Your task to perform on an android device: Search for custom t-shirts on Etsy. Image 0: 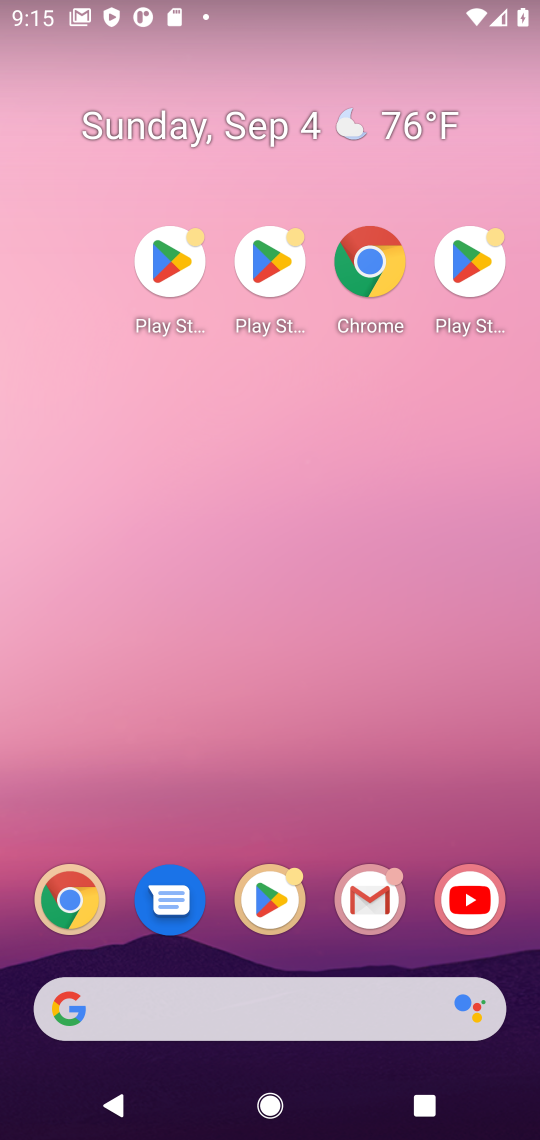
Step 0: drag from (313, 973) to (329, 139)
Your task to perform on an android device: Search for custom t-shirts on Etsy. Image 1: 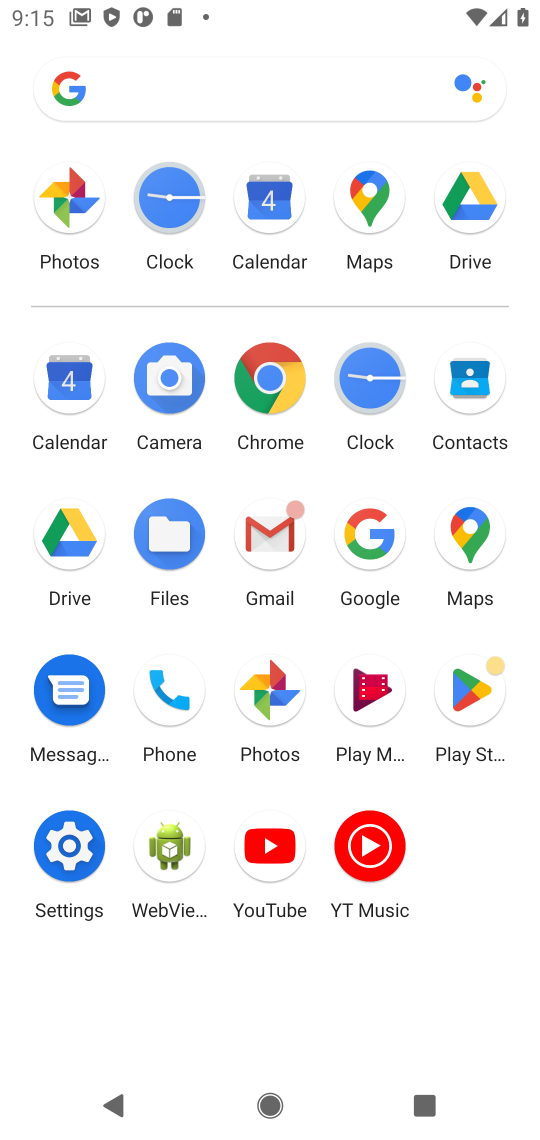
Step 1: click (285, 396)
Your task to perform on an android device: Search for custom t-shirts on Etsy. Image 2: 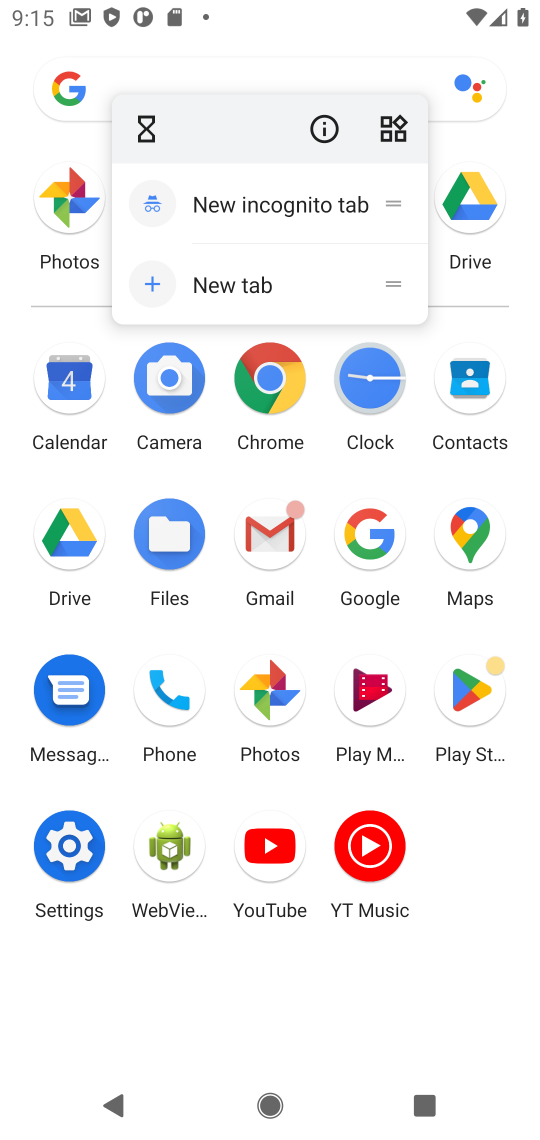
Step 2: click (210, 379)
Your task to perform on an android device: Search for custom t-shirts on Etsy. Image 3: 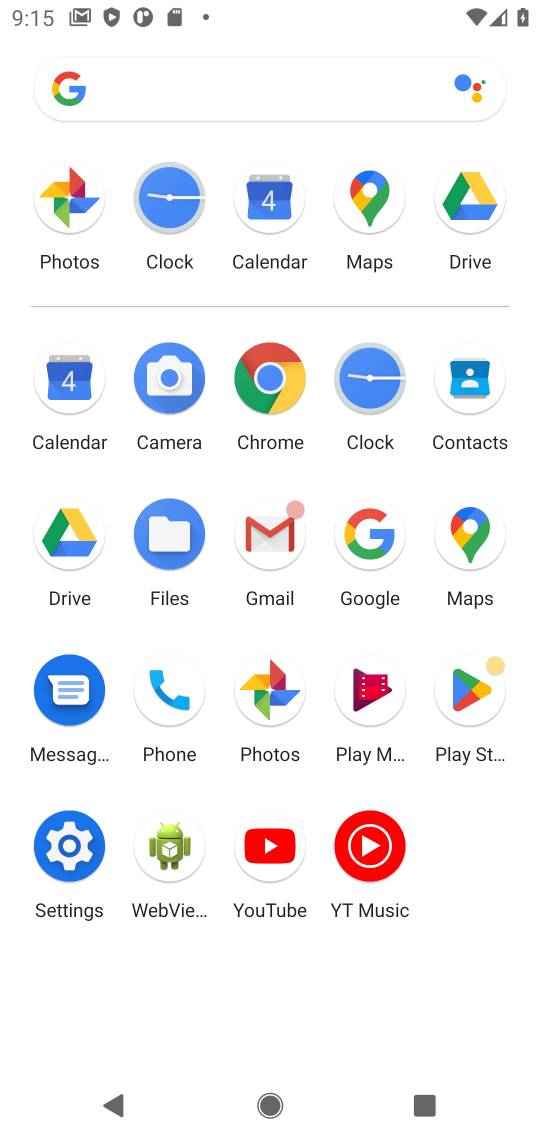
Step 3: click (264, 377)
Your task to perform on an android device: Search for custom t-shirts on Etsy. Image 4: 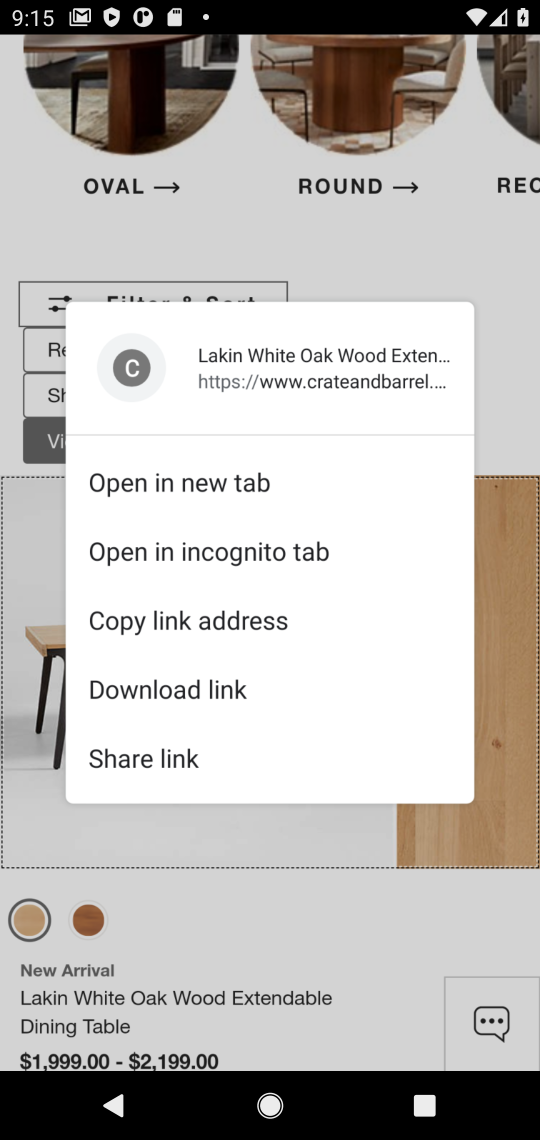
Step 4: click (326, 194)
Your task to perform on an android device: Search for custom t-shirts on Etsy. Image 5: 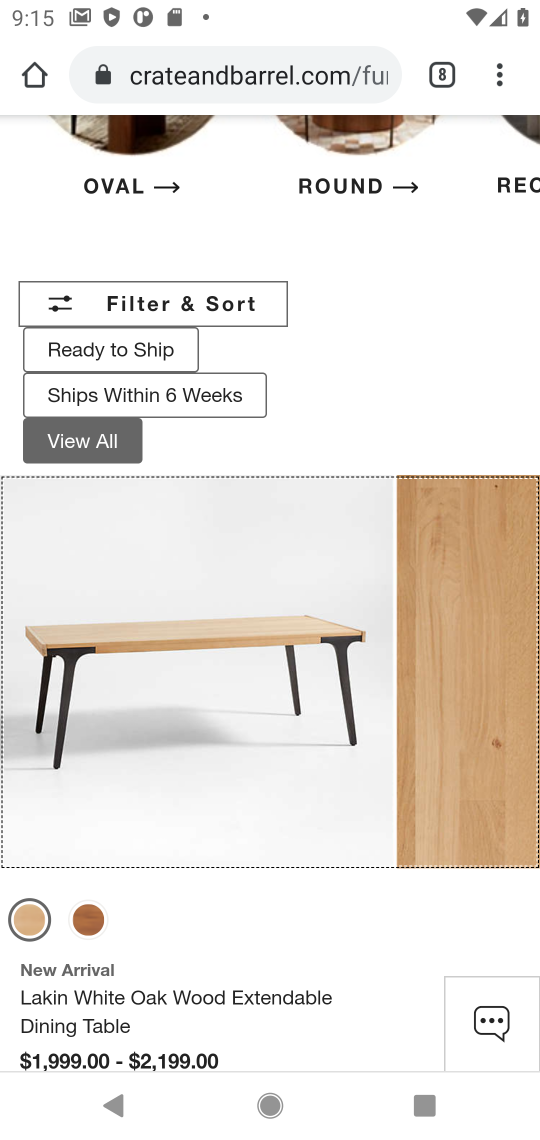
Step 5: click (293, 85)
Your task to perform on an android device: Search for custom t-shirts on Etsy. Image 6: 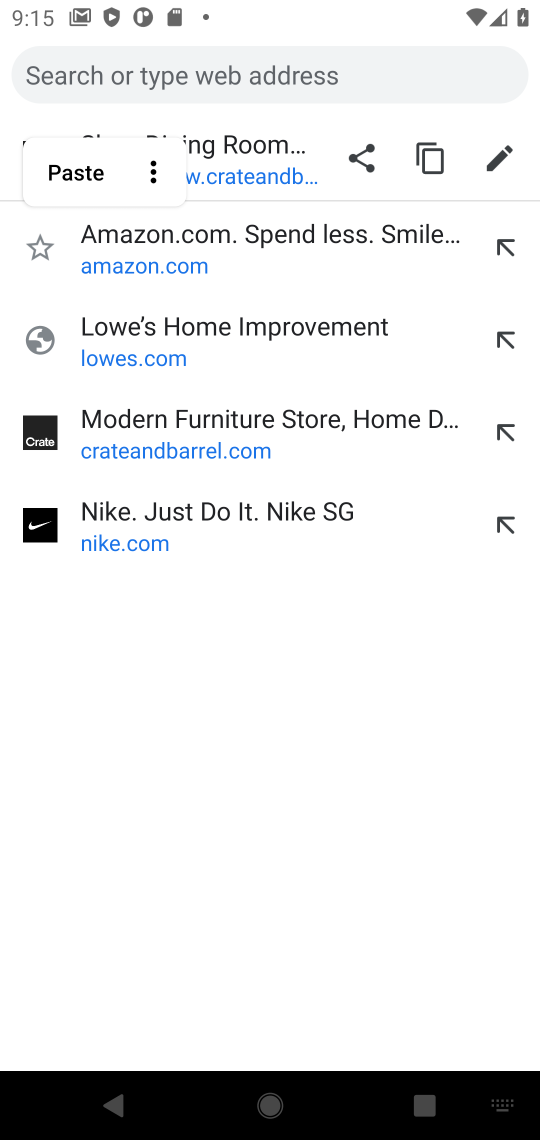
Step 6: type "Etsy"
Your task to perform on an android device: Search for custom t-shirts on Etsy. Image 7: 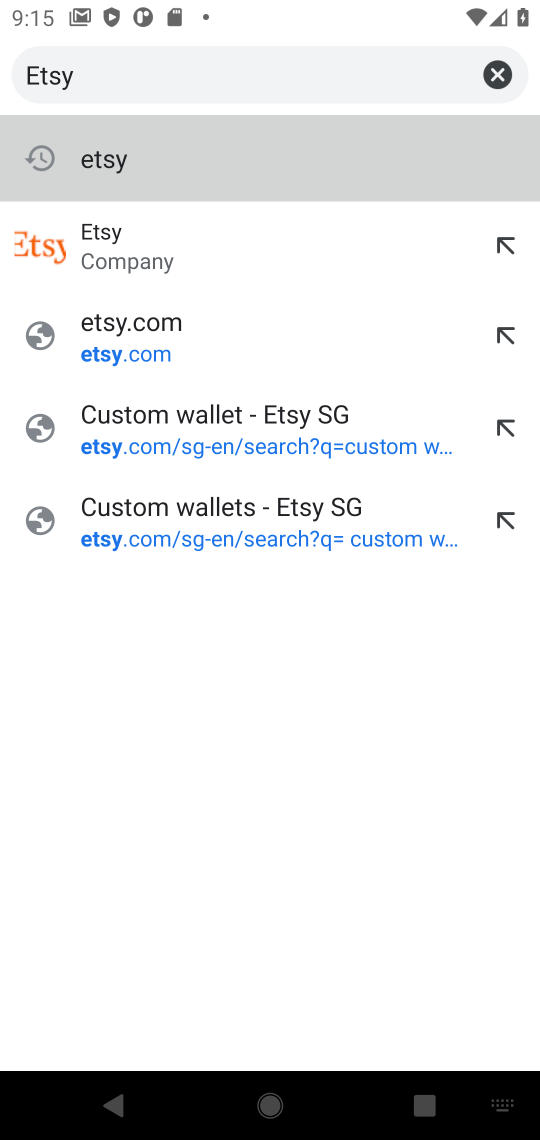
Step 7: type ""
Your task to perform on an android device: Search for custom t-shirts on Etsy. Image 8: 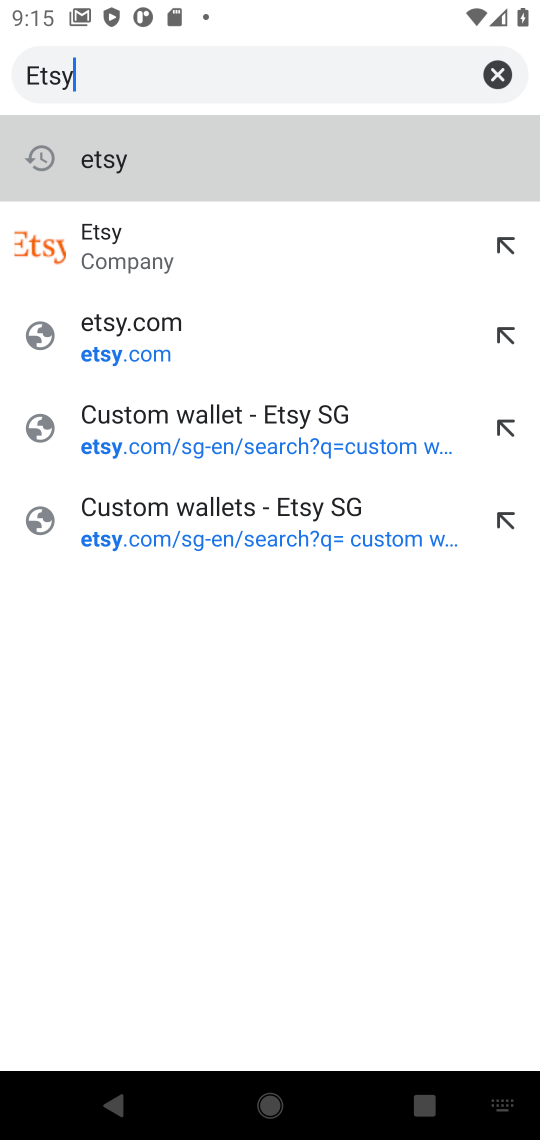
Step 8: click (140, 158)
Your task to perform on an android device: Search for custom t-shirts on Etsy. Image 9: 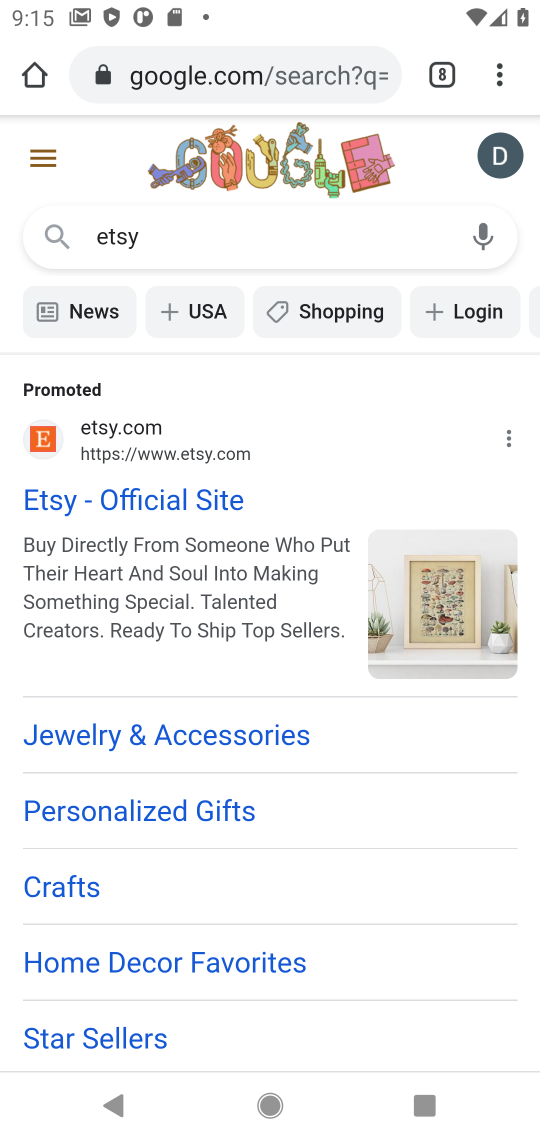
Step 9: click (154, 497)
Your task to perform on an android device: Search for custom t-shirts on Etsy. Image 10: 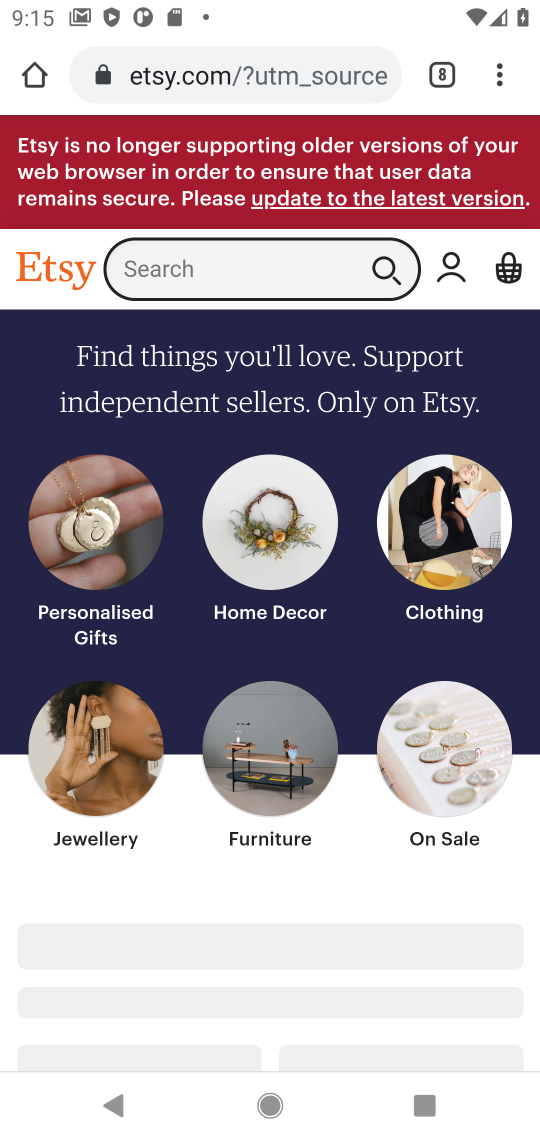
Step 10: click (151, 277)
Your task to perform on an android device: Search for custom t-shirts on Etsy. Image 11: 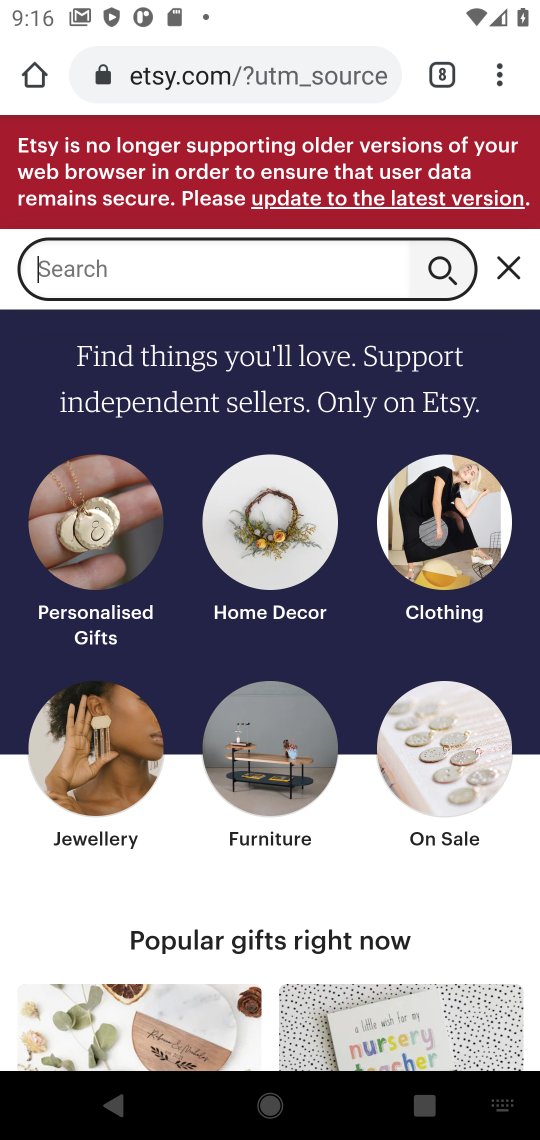
Step 11: type "custom t-shirts"
Your task to perform on an android device: Search for custom t-shirts on Etsy. Image 12: 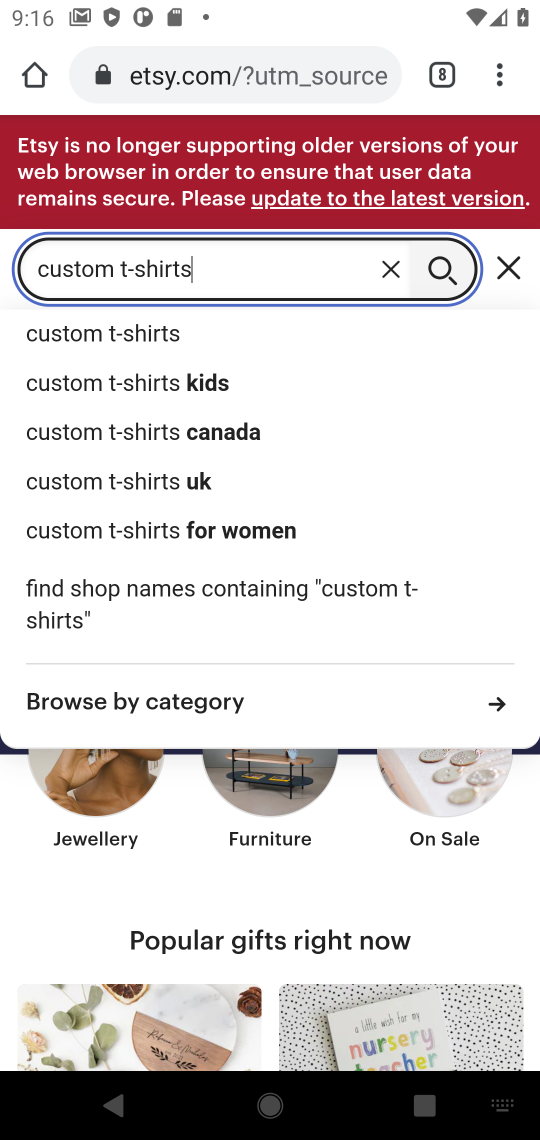
Step 12: click (141, 331)
Your task to perform on an android device: Search for custom t-shirts on Etsy. Image 13: 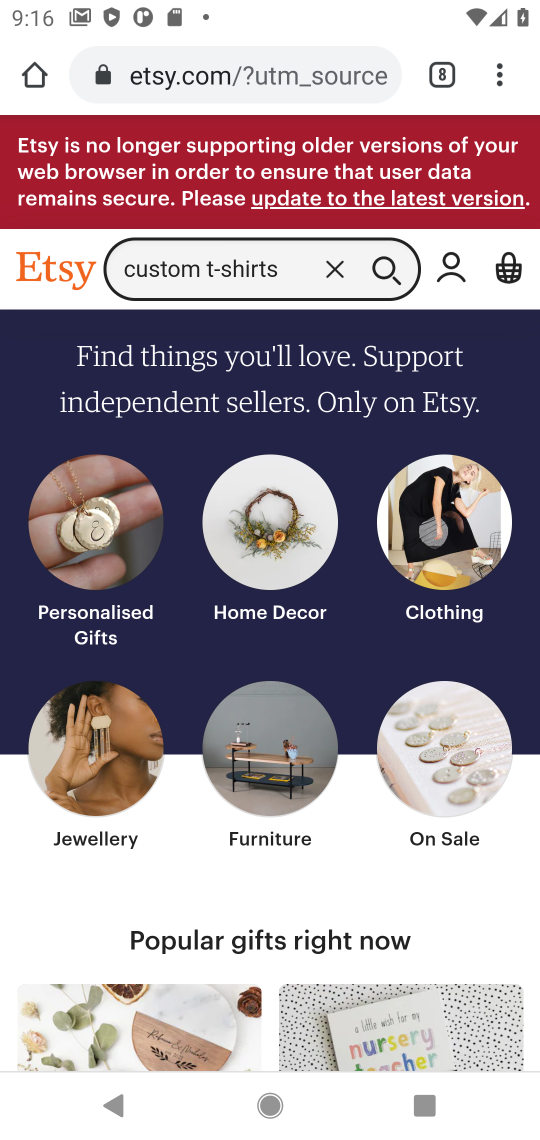
Step 13: click (379, 272)
Your task to perform on an android device: Search for custom t-shirts on Etsy. Image 14: 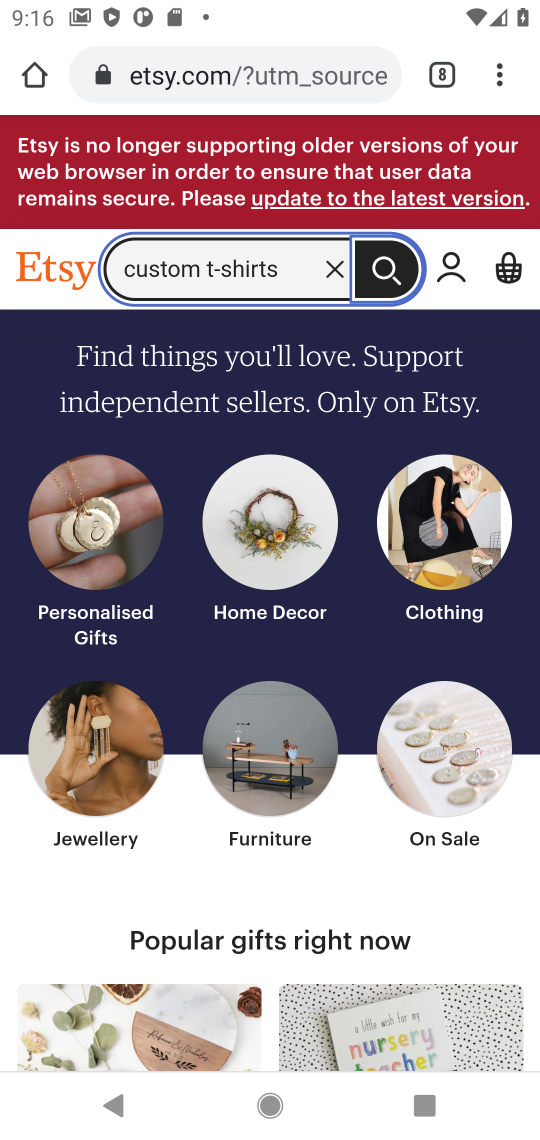
Step 14: click (385, 264)
Your task to perform on an android device: Search for custom t-shirts on Etsy. Image 15: 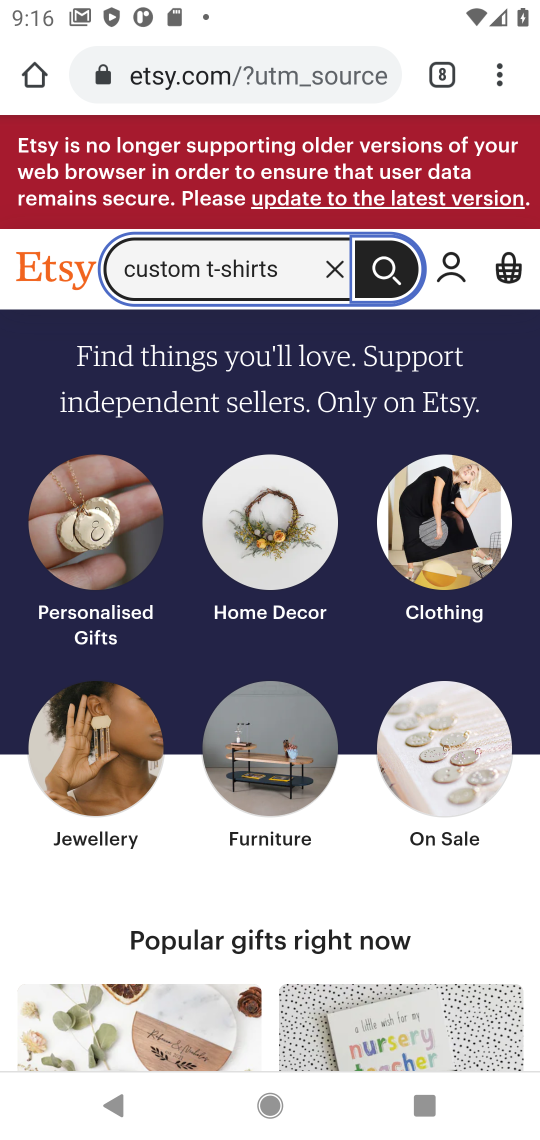
Step 15: click (385, 264)
Your task to perform on an android device: Search for custom t-shirts on Etsy. Image 16: 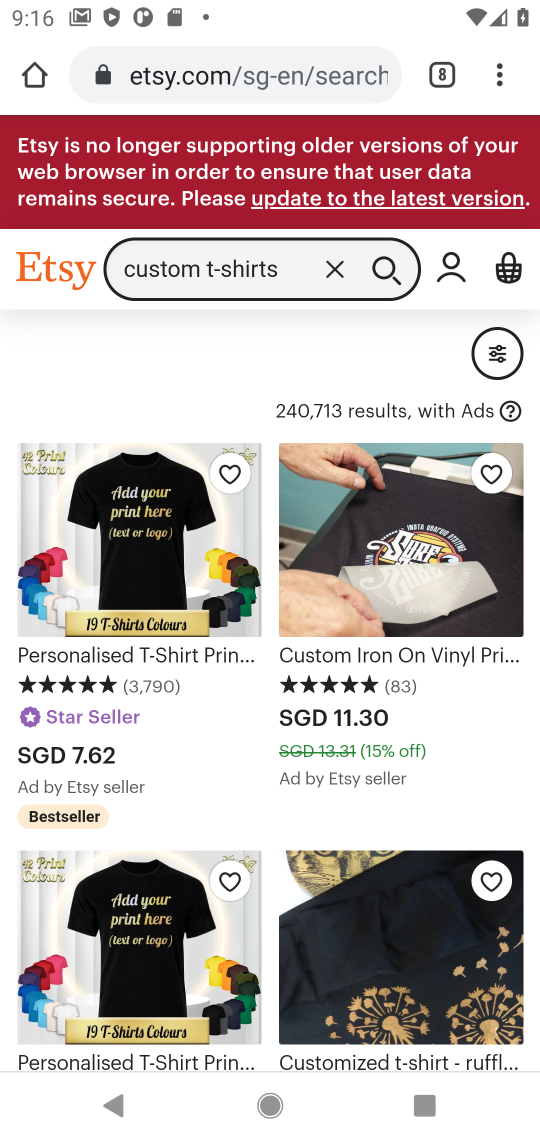
Step 16: drag from (375, 836) to (335, 405)
Your task to perform on an android device: Search for custom t-shirts on Etsy. Image 17: 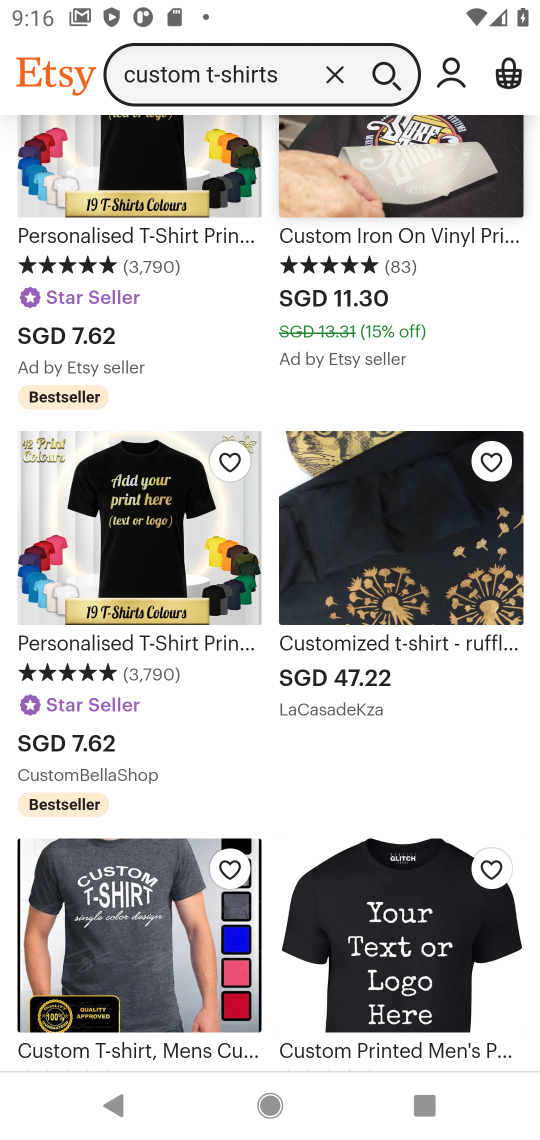
Step 17: drag from (305, 871) to (291, 437)
Your task to perform on an android device: Search for custom t-shirts on Etsy. Image 18: 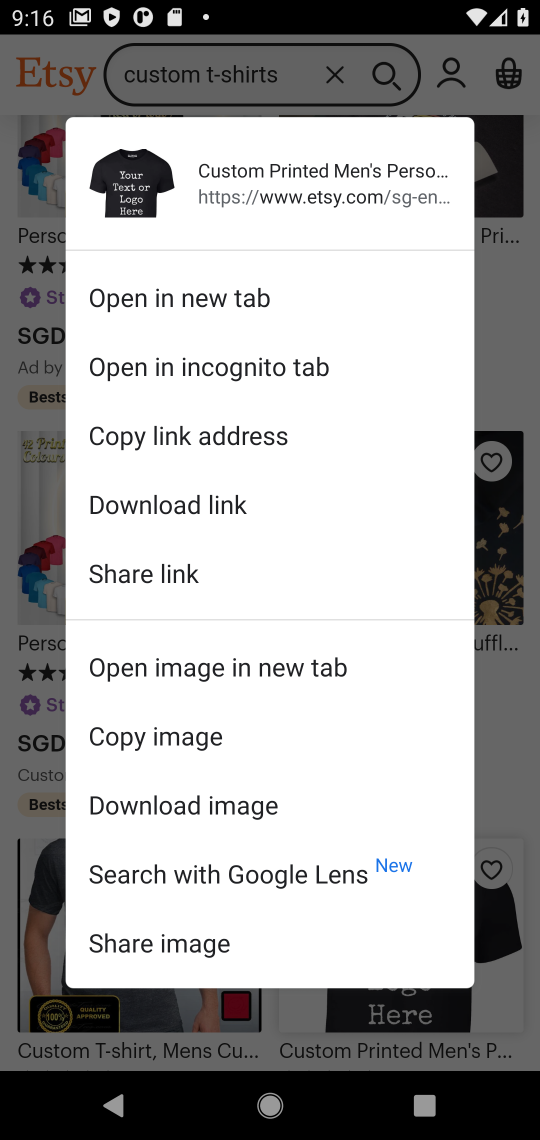
Step 18: click (496, 662)
Your task to perform on an android device: Search for custom t-shirts on Etsy. Image 19: 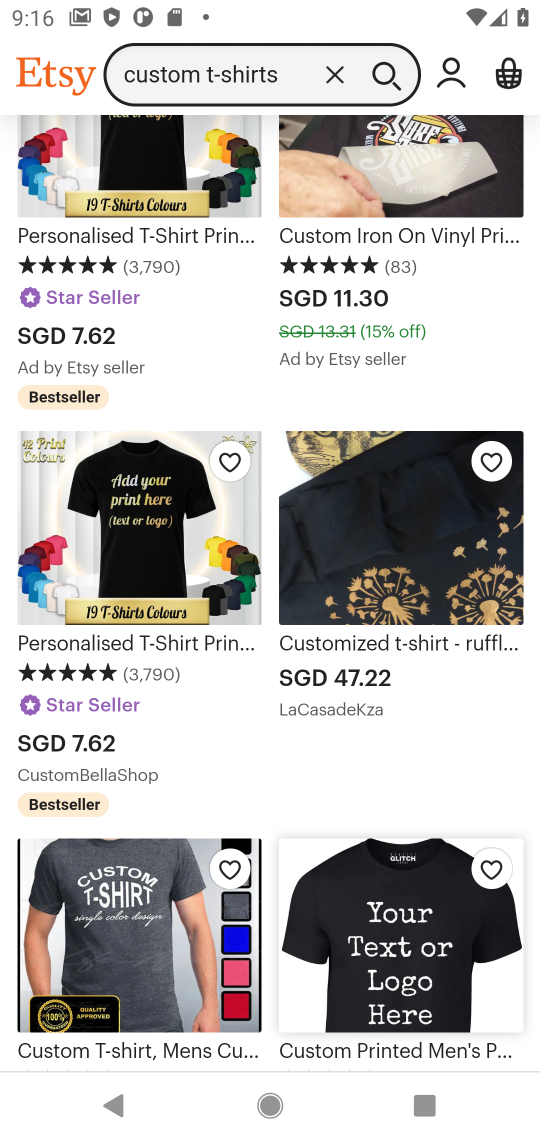
Step 19: task complete